Your task to perform on an android device: Search for pizza restaurants on Maps Image 0: 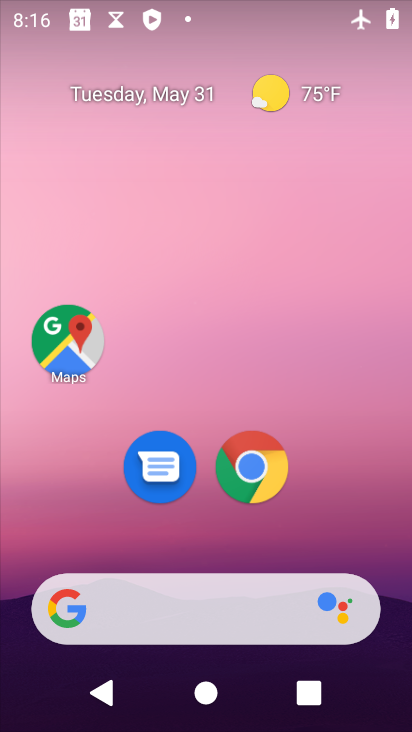
Step 0: drag from (222, 533) to (260, 127)
Your task to perform on an android device: Search for pizza restaurants on Maps Image 1: 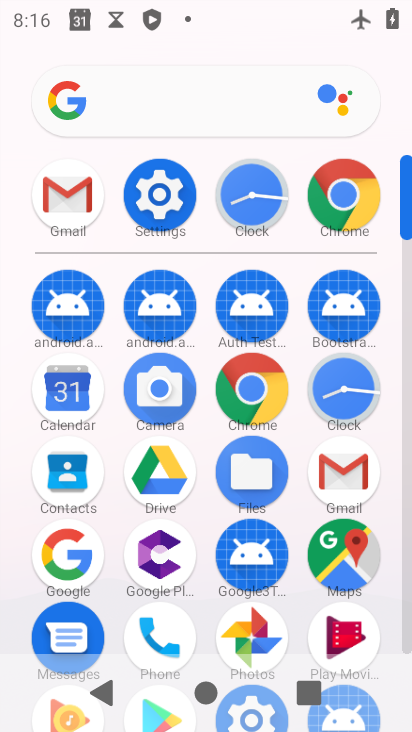
Step 1: click (343, 555)
Your task to perform on an android device: Search for pizza restaurants on Maps Image 2: 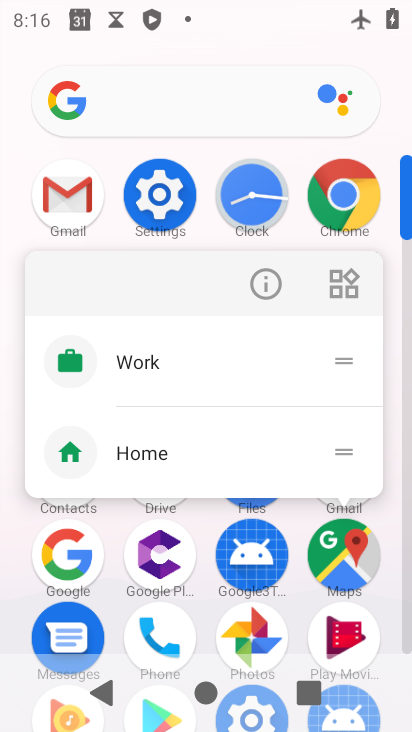
Step 2: click (267, 285)
Your task to perform on an android device: Search for pizza restaurants on Maps Image 3: 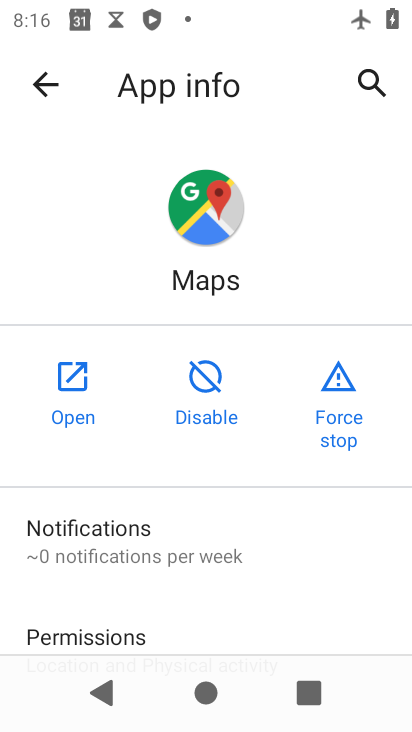
Step 3: click (70, 391)
Your task to perform on an android device: Search for pizza restaurants on Maps Image 4: 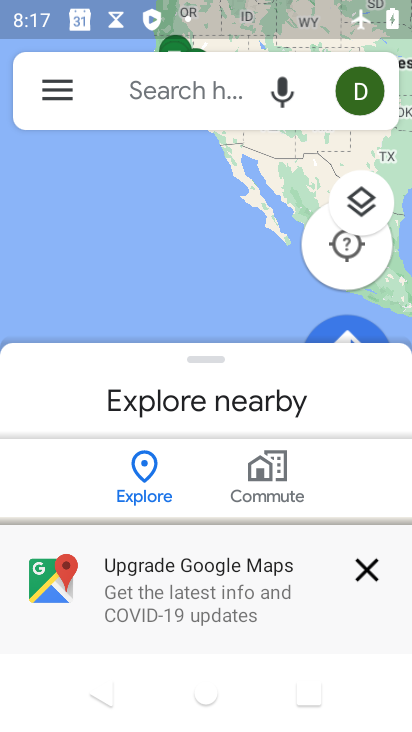
Step 4: click (153, 91)
Your task to perform on an android device: Search for pizza restaurants on Maps Image 5: 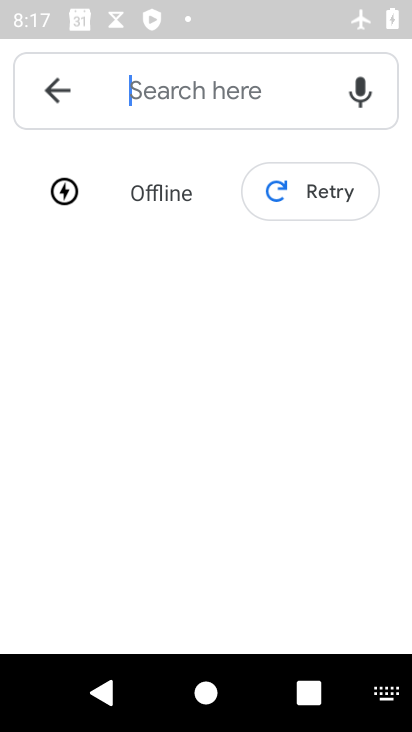
Step 5: click (273, 189)
Your task to perform on an android device: Search for pizza restaurants on Maps Image 6: 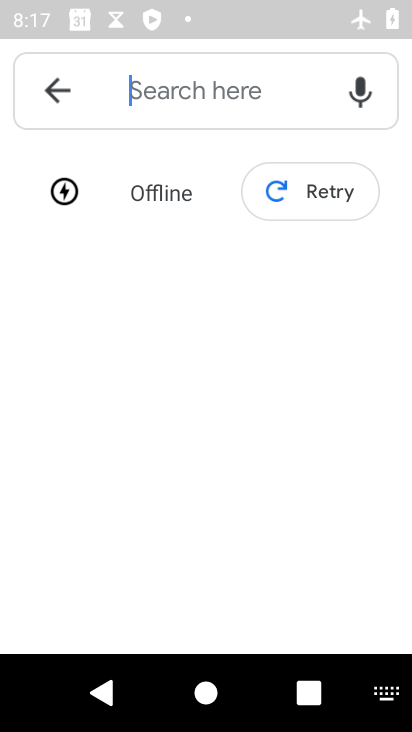
Step 6: task complete